Your task to perform on an android device: open chrome privacy settings Image 0: 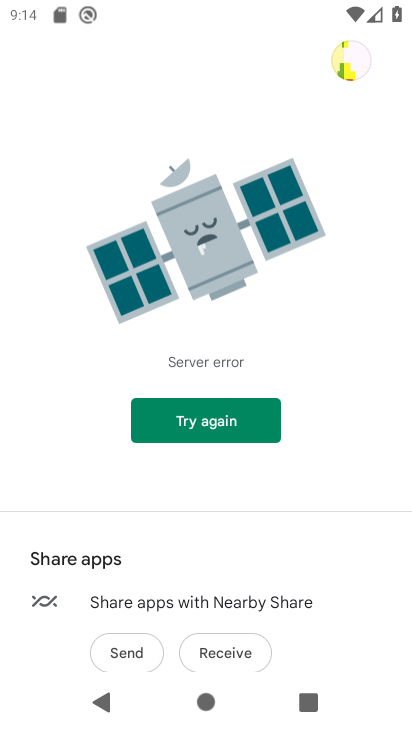
Step 0: press home button
Your task to perform on an android device: open chrome privacy settings Image 1: 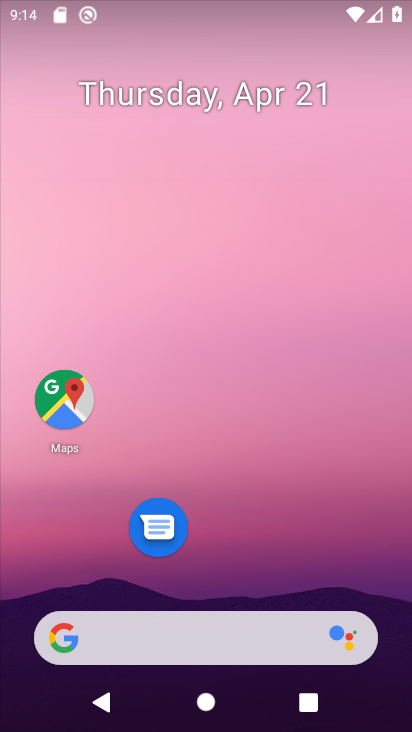
Step 1: drag from (219, 520) to (221, 60)
Your task to perform on an android device: open chrome privacy settings Image 2: 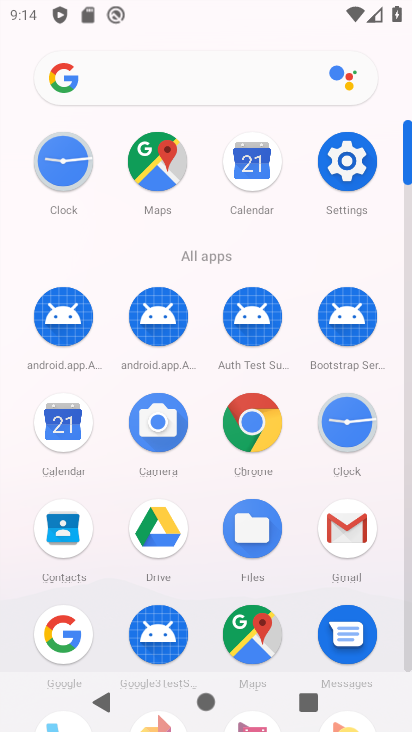
Step 2: click (245, 427)
Your task to perform on an android device: open chrome privacy settings Image 3: 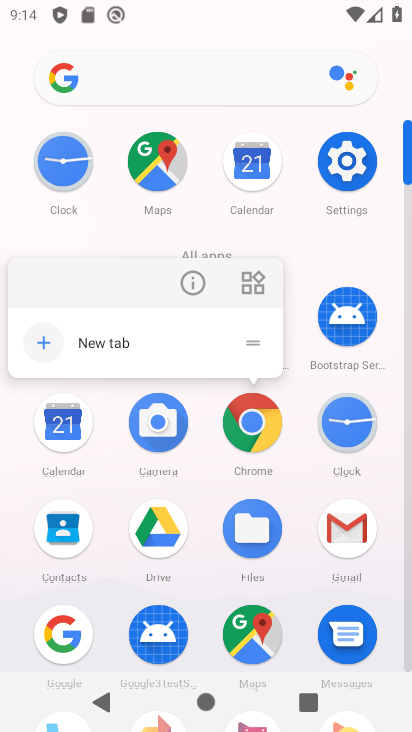
Step 3: click (245, 427)
Your task to perform on an android device: open chrome privacy settings Image 4: 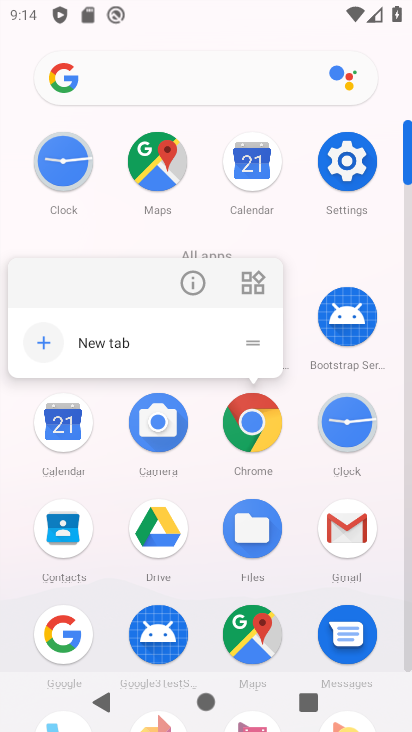
Step 4: click (245, 427)
Your task to perform on an android device: open chrome privacy settings Image 5: 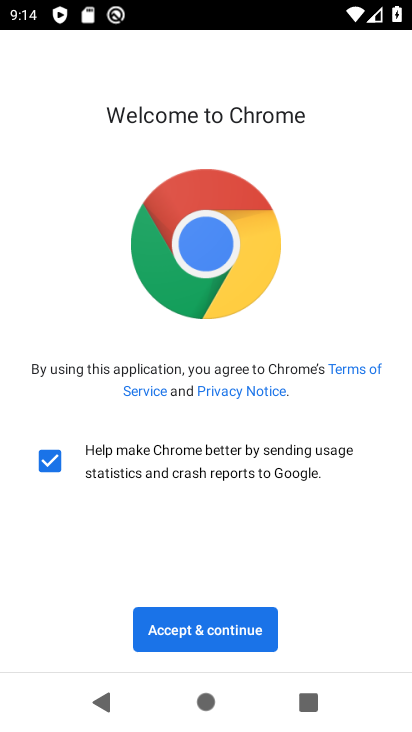
Step 5: click (201, 638)
Your task to perform on an android device: open chrome privacy settings Image 6: 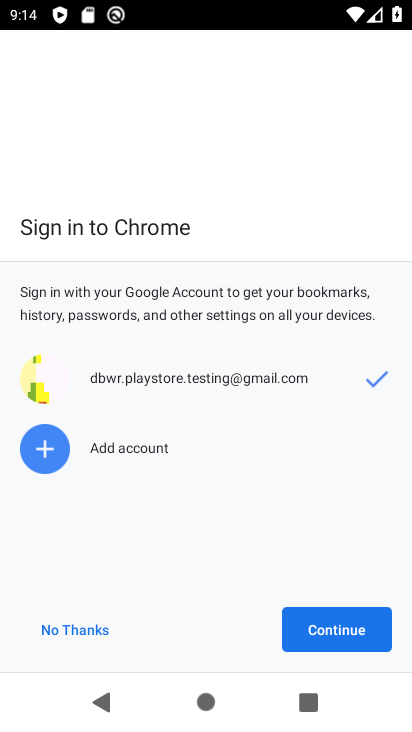
Step 6: click (335, 641)
Your task to perform on an android device: open chrome privacy settings Image 7: 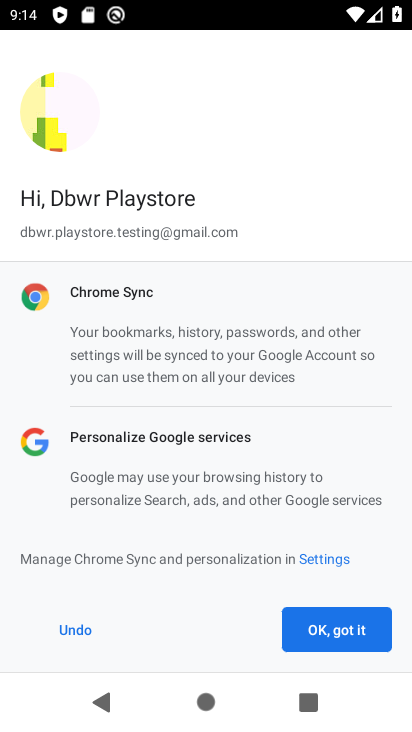
Step 7: click (307, 621)
Your task to perform on an android device: open chrome privacy settings Image 8: 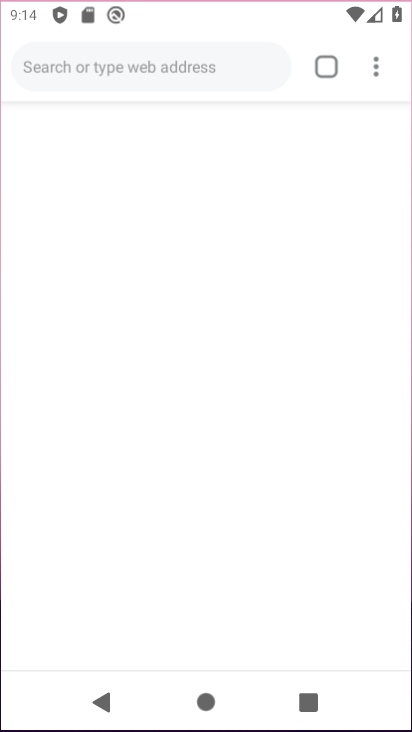
Step 8: click (331, 629)
Your task to perform on an android device: open chrome privacy settings Image 9: 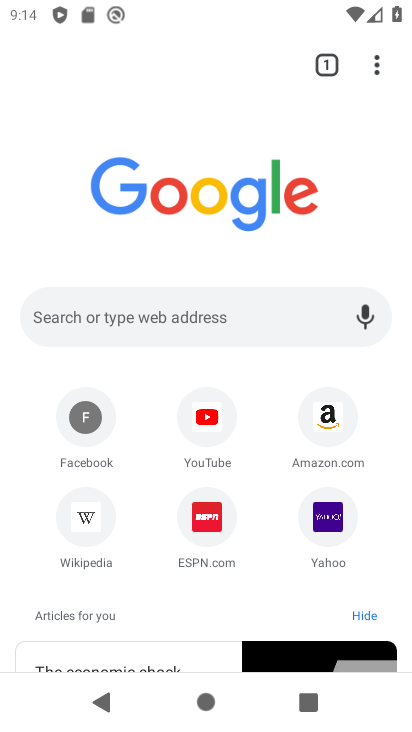
Step 9: drag from (375, 66) to (181, 531)
Your task to perform on an android device: open chrome privacy settings Image 10: 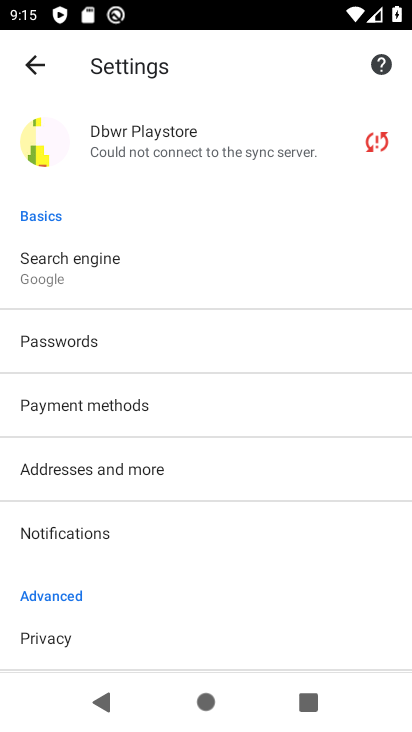
Step 10: click (116, 629)
Your task to perform on an android device: open chrome privacy settings Image 11: 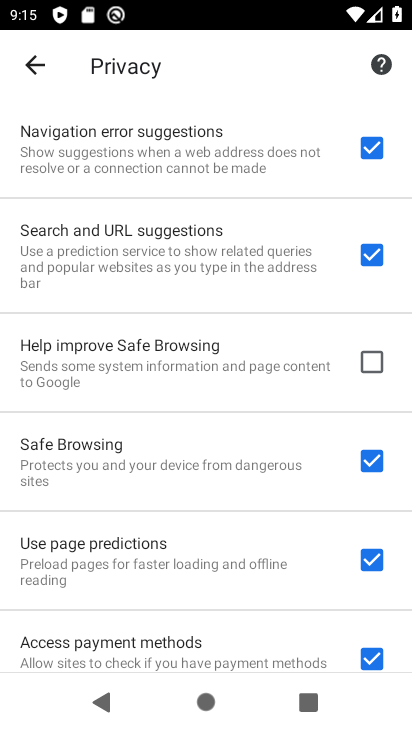
Step 11: task complete